Your task to perform on an android device: toggle pop-ups in chrome Image 0: 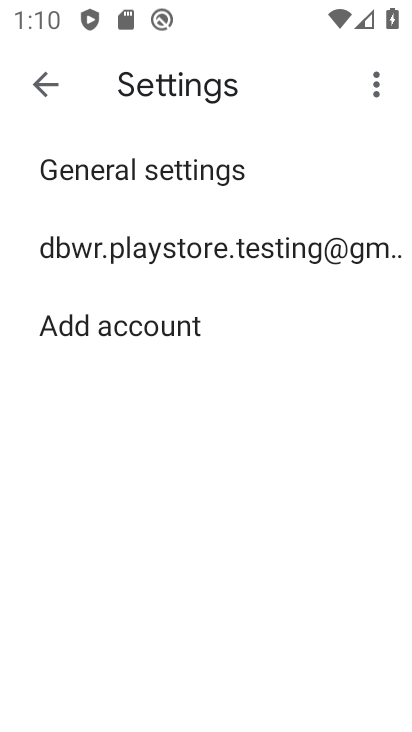
Step 0: press home button
Your task to perform on an android device: toggle pop-ups in chrome Image 1: 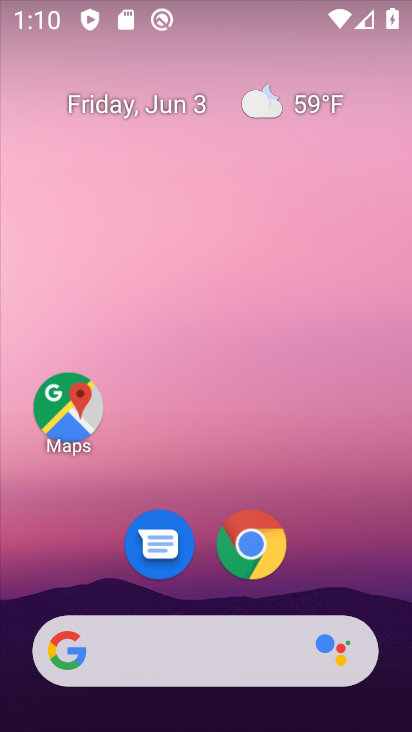
Step 1: click (252, 560)
Your task to perform on an android device: toggle pop-ups in chrome Image 2: 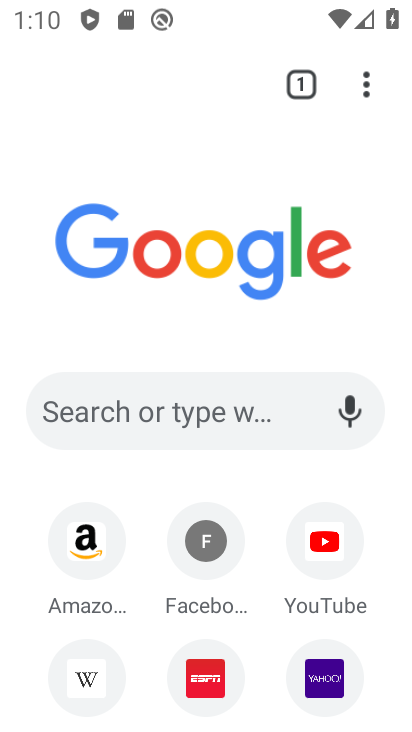
Step 2: drag from (366, 87) to (100, 582)
Your task to perform on an android device: toggle pop-ups in chrome Image 3: 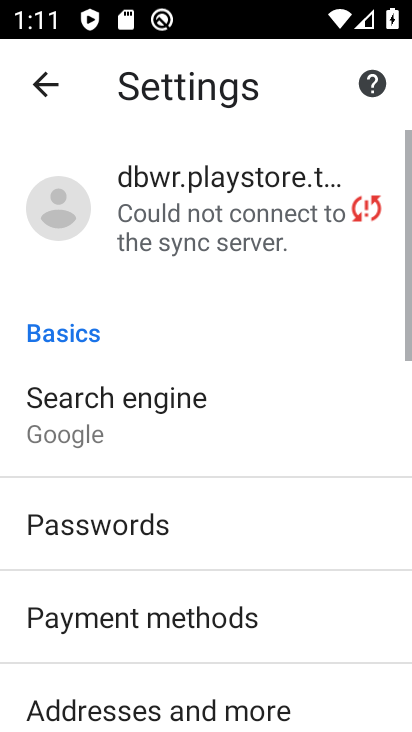
Step 3: drag from (100, 582) to (26, 16)
Your task to perform on an android device: toggle pop-ups in chrome Image 4: 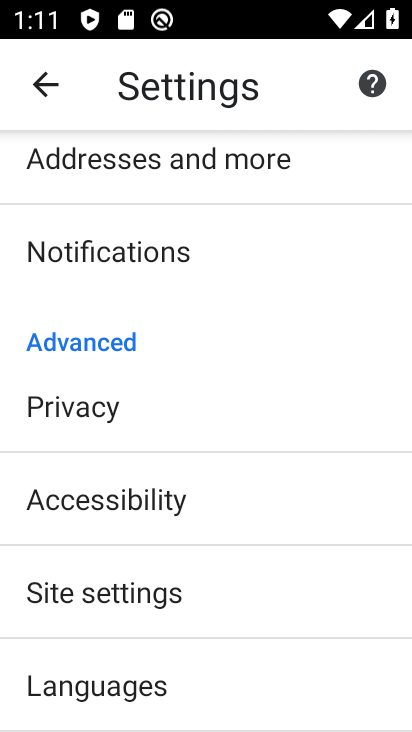
Step 4: click (106, 591)
Your task to perform on an android device: toggle pop-ups in chrome Image 5: 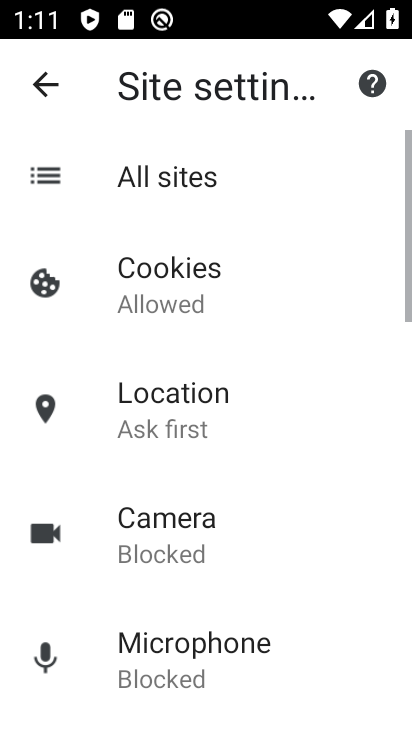
Step 5: drag from (106, 591) to (76, 123)
Your task to perform on an android device: toggle pop-ups in chrome Image 6: 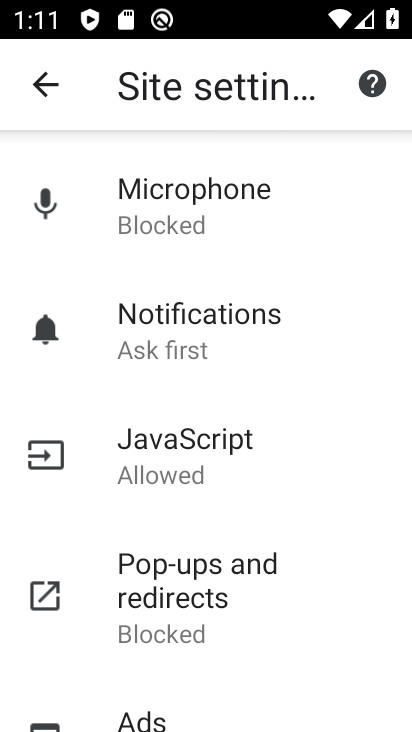
Step 6: click (163, 567)
Your task to perform on an android device: toggle pop-ups in chrome Image 7: 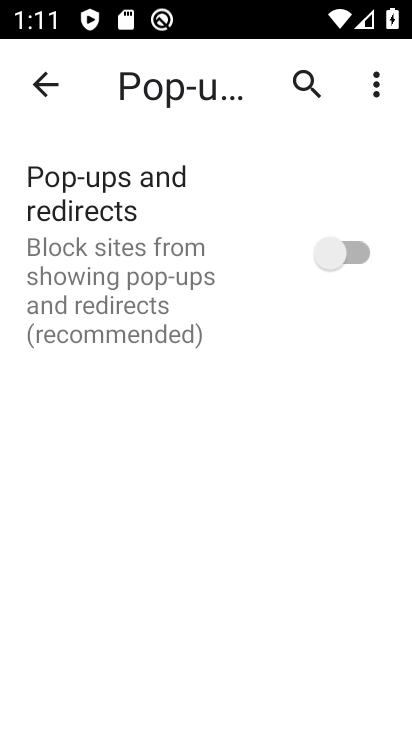
Step 7: click (341, 256)
Your task to perform on an android device: toggle pop-ups in chrome Image 8: 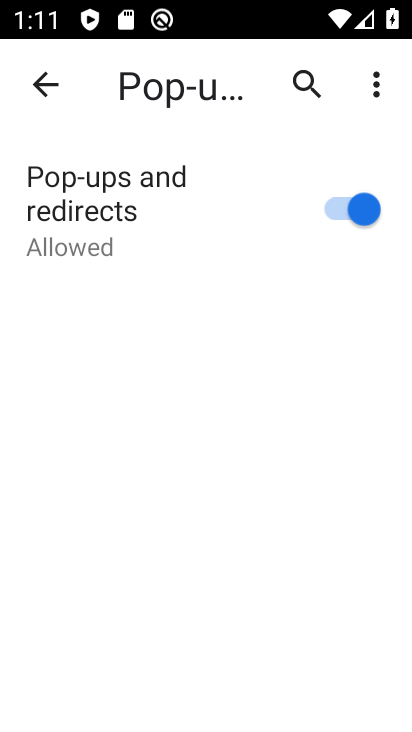
Step 8: task complete